Your task to perform on an android device: Open ESPN.com Image 0: 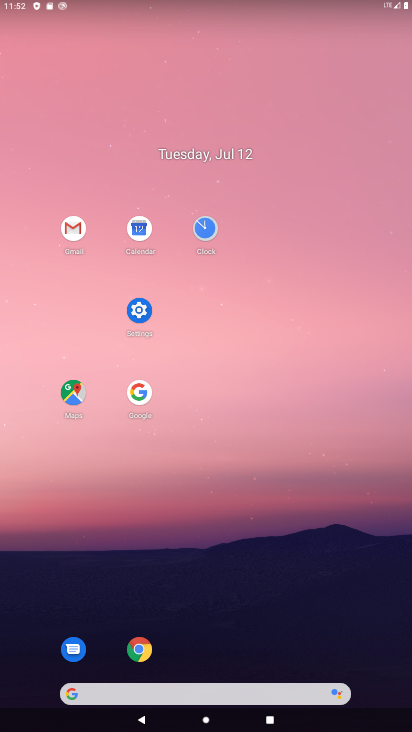
Step 0: click (137, 649)
Your task to perform on an android device: Open ESPN.com Image 1: 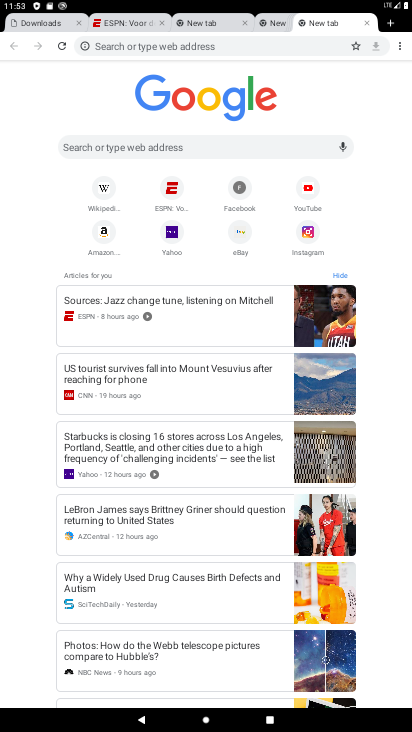
Step 1: click (166, 185)
Your task to perform on an android device: Open ESPN.com Image 2: 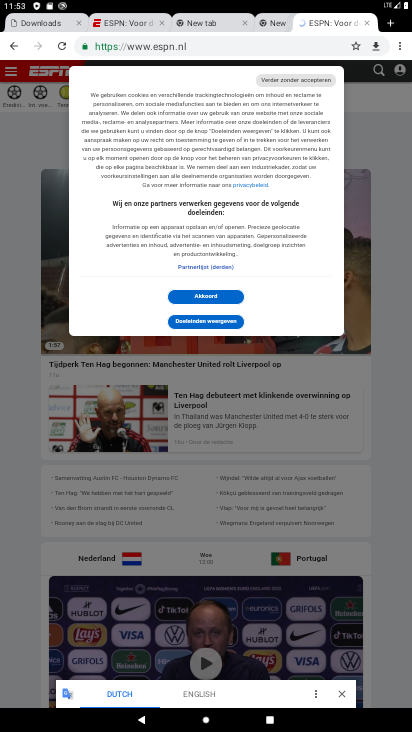
Step 2: task complete